Your task to perform on an android device: Go to battery settings Image 0: 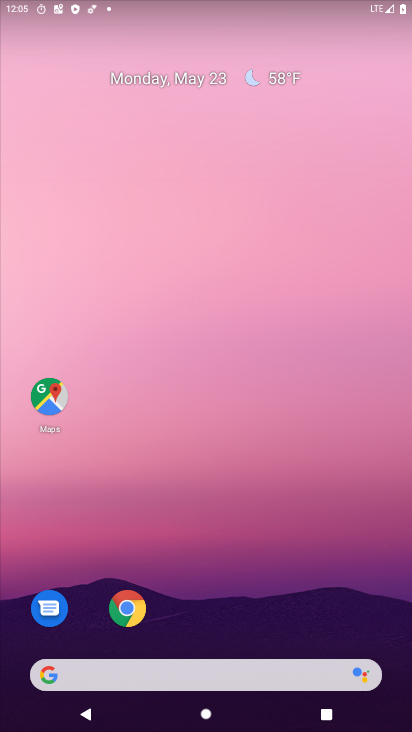
Step 0: drag from (241, 618) to (214, 103)
Your task to perform on an android device: Go to battery settings Image 1: 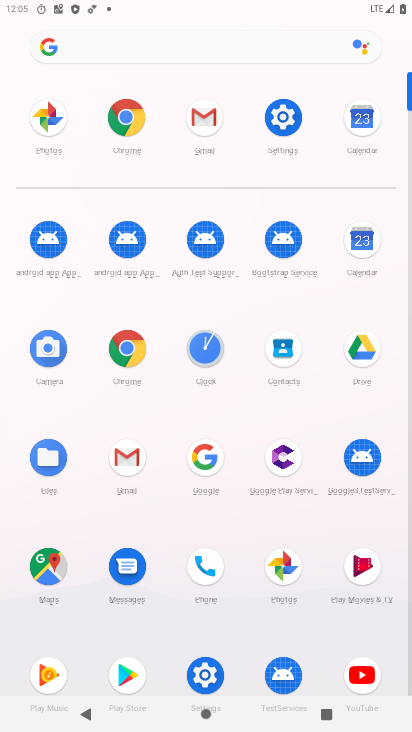
Step 1: click (271, 122)
Your task to perform on an android device: Go to battery settings Image 2: 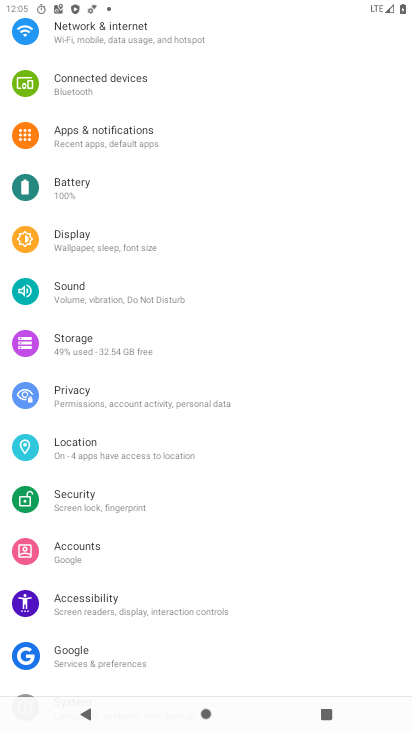
Step 2: click (210, 178)
Your task to perform on an android device: Go to battery settings Image 3: 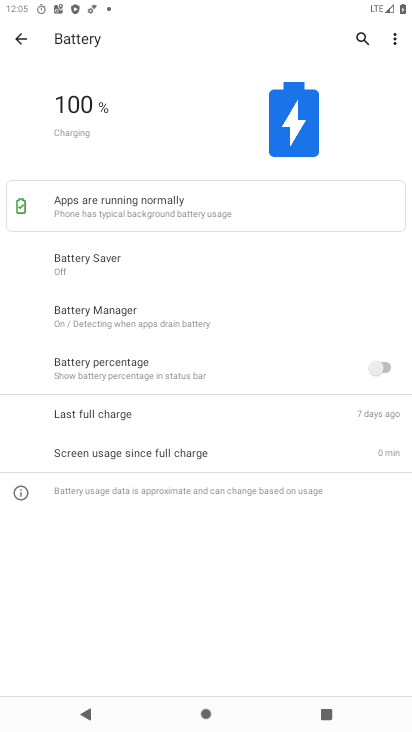
Step 3: task complete